Your task to perform on an android device: toggle location history Image 0: 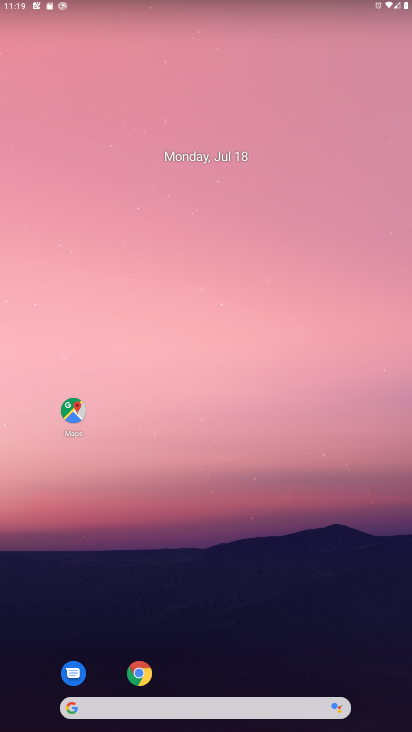
Step 0: drag from (206, 655) to (218, 134)
Your task to perform on an android device: toggle location history Image 1: 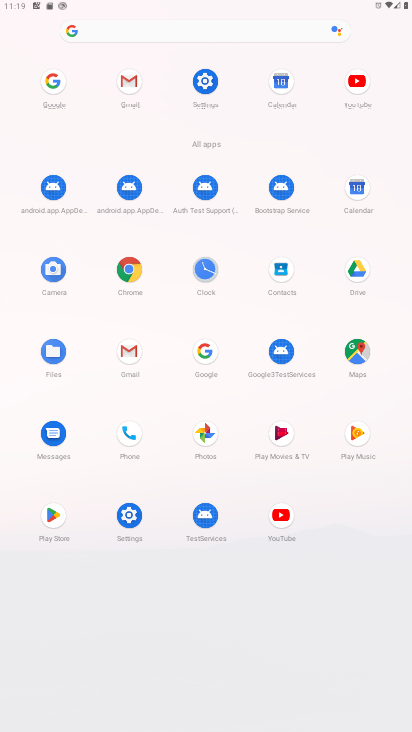
Step 1: click (217, 84)
Your task to perform on an android device: toggle location history Image 2: 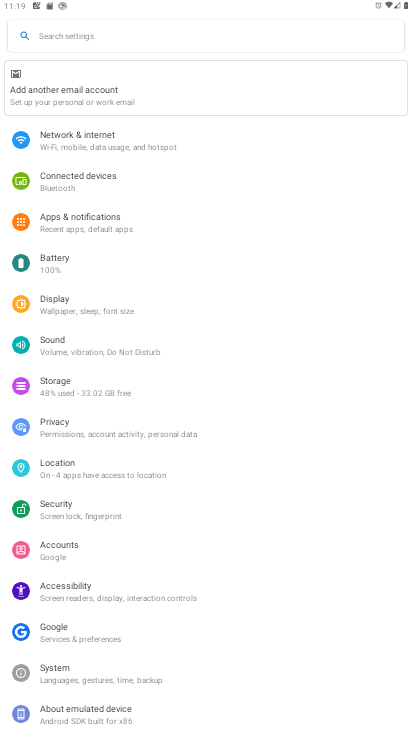
Step 2: click (81, 473)
Your task to perform on an android device: toggle location history Image 3: 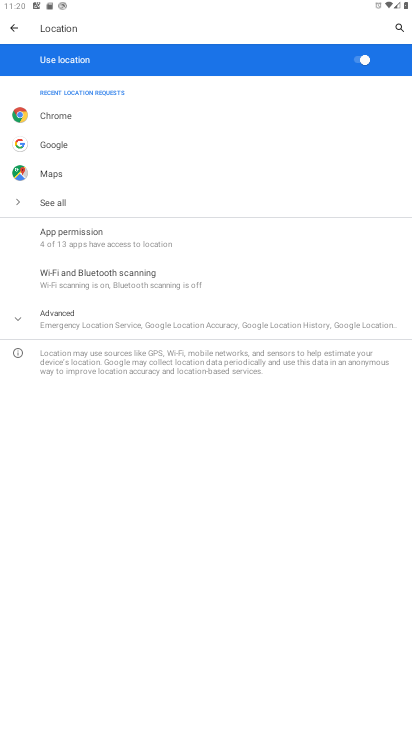
Step 3: click (102, 318)
Your task to perform on an android device: toggle location history Image 4: 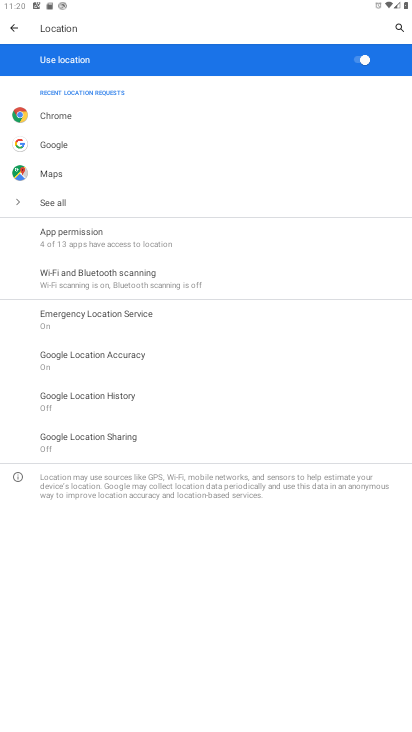
Step 4: click (149, 404)
Your task to perform on an android device: toggle location history Image 5: 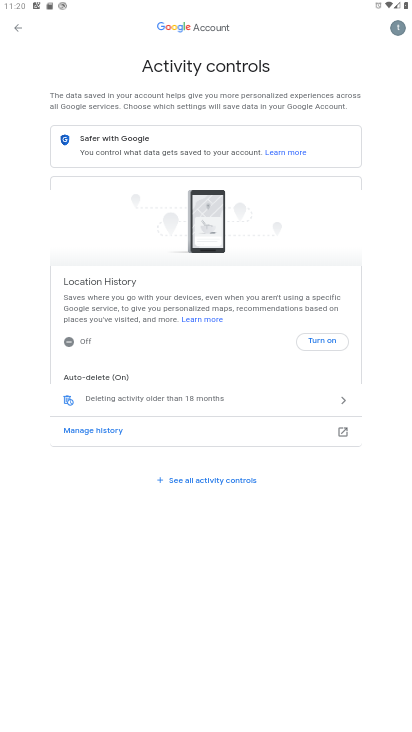
Step 5: click (316, 343)
Your task to perform on an android device: toggle location history Image 6: 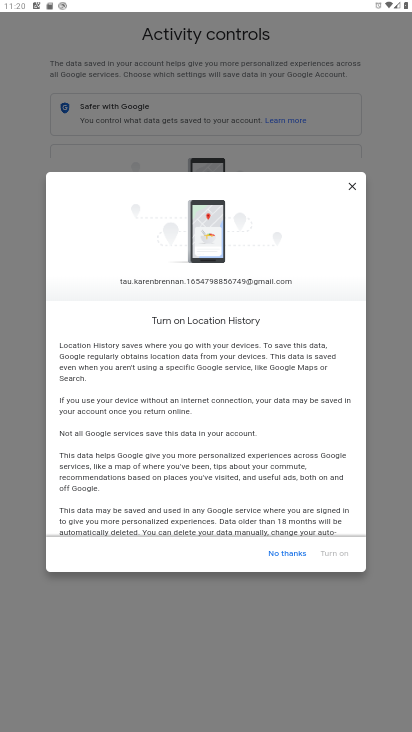
Step 6: drag from (276, 447) to (280, 211)
Your task to perform on an android device: toggle location history Image 7: 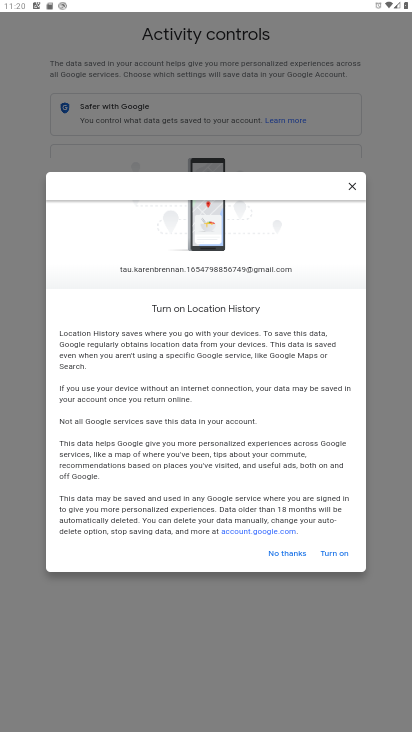
Step 7: click (327, 542)
Your task to perform on an android device: toggle location history Image 8: 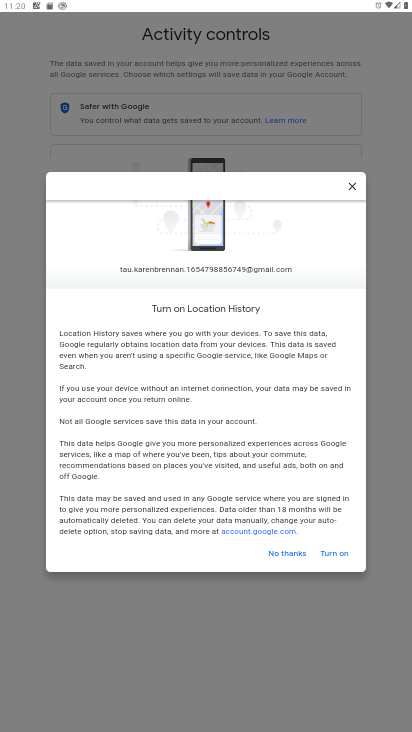
Step 8: click (339, 549)
Your task to perform on an android device: toggle location history Image 9: 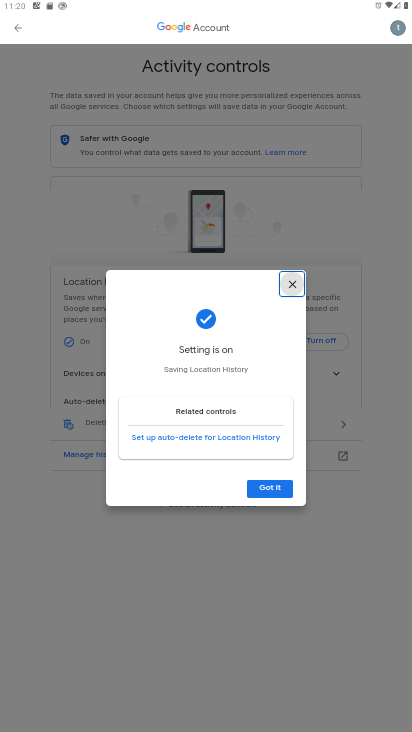
Step 9: task complete